Your task to perform on an android device: Open accessibility settings Image 0: 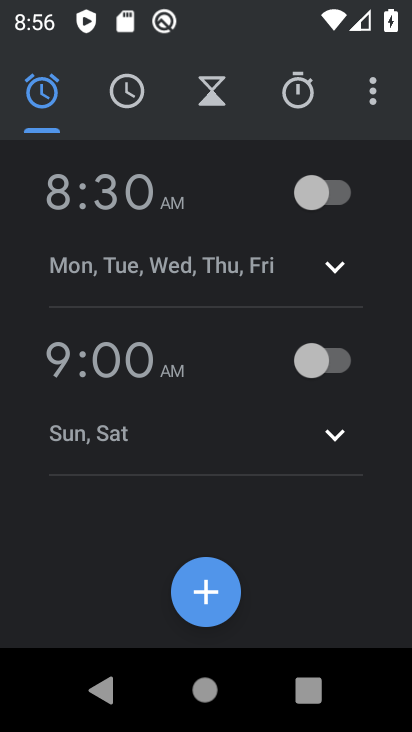
Step 0: press home button
Your task to perform on an android device: Open accessibility settings Image 1: 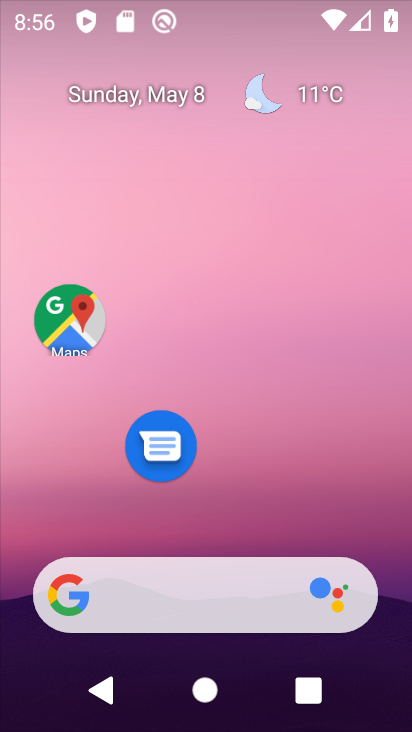
Step 1: drag from (309, 526) to (297, 58)
Your task to perform on an android device: Open accessibility settings Image 2: 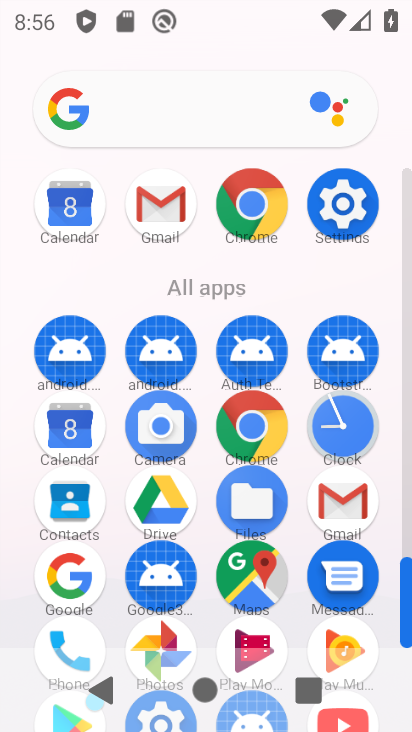
Step 2: click (332, 211)
Your task to perform on an android device: Open accessibility settings Image 3: 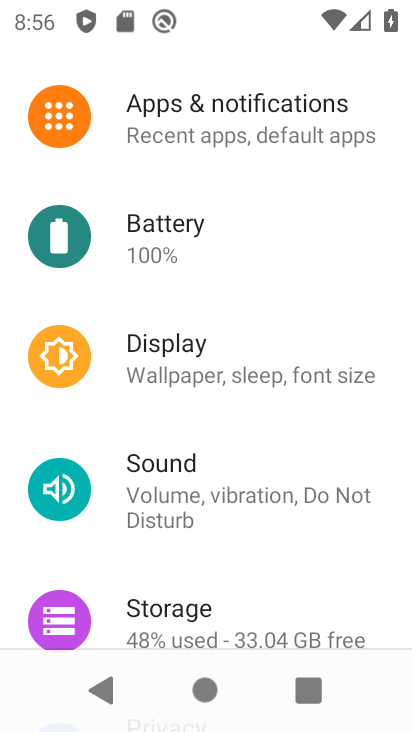
Step 3: drag from (217, 542) to (194, 92)
Your task to perform on an android device: Open accessibility settings Image 4: 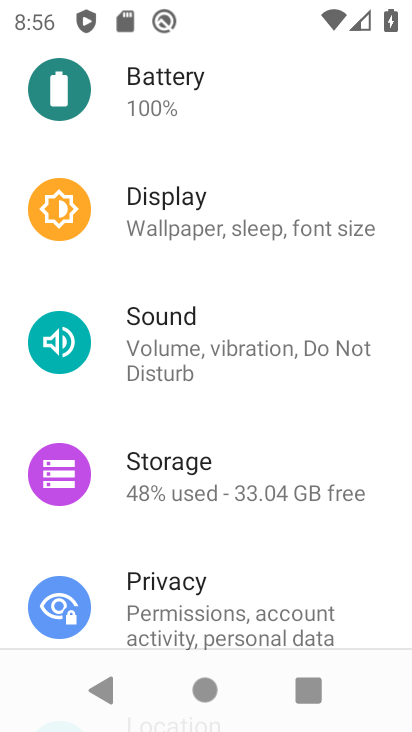
Step 4: drag from (150, 596) to (153, 17)
Your task to perform on an android device: Open accessibility settings Image 5: 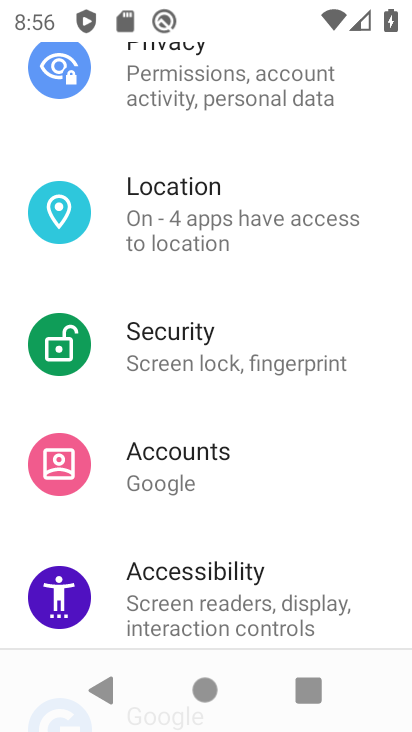
Step 5: click (143, 573)
Your task to perform on an android device: Open accessibility settings Image 6: 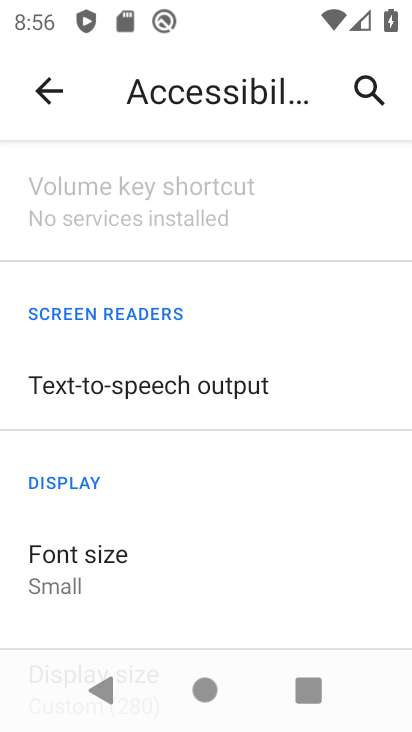
Step 6: task complete